Your task to perform on an android device: Show me the best rated vacuum on Walmart. Image 0: 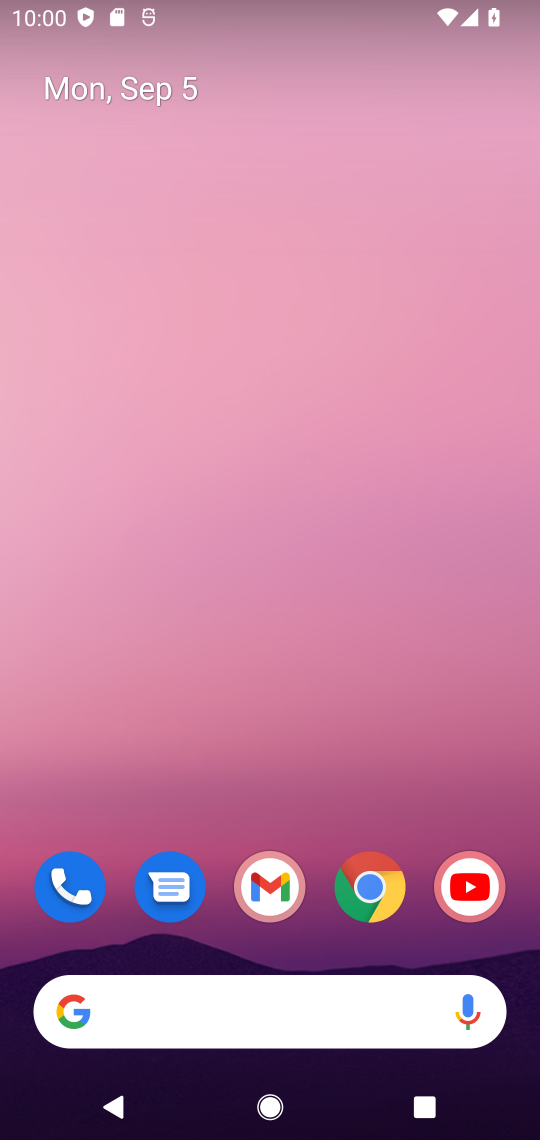
Step 0: click (367, 888)
Your task to perform on an android device: Show me the best rated vacuum on Walmart. Image 1: 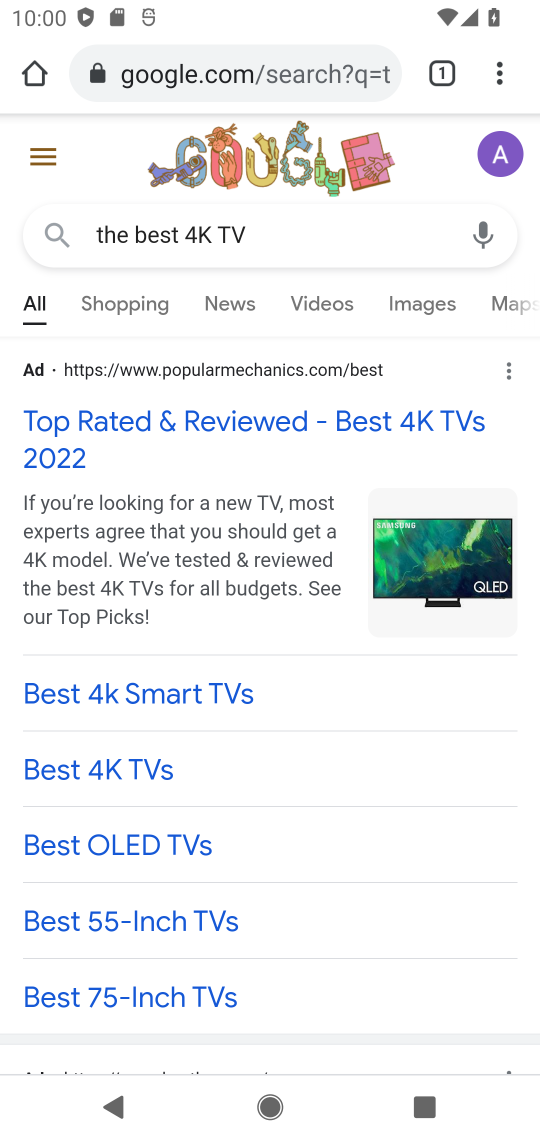
Step 1: click (229, 228)
Your task to perform on an android device: Show me the best rated vacuum on Walmart. Image 2: 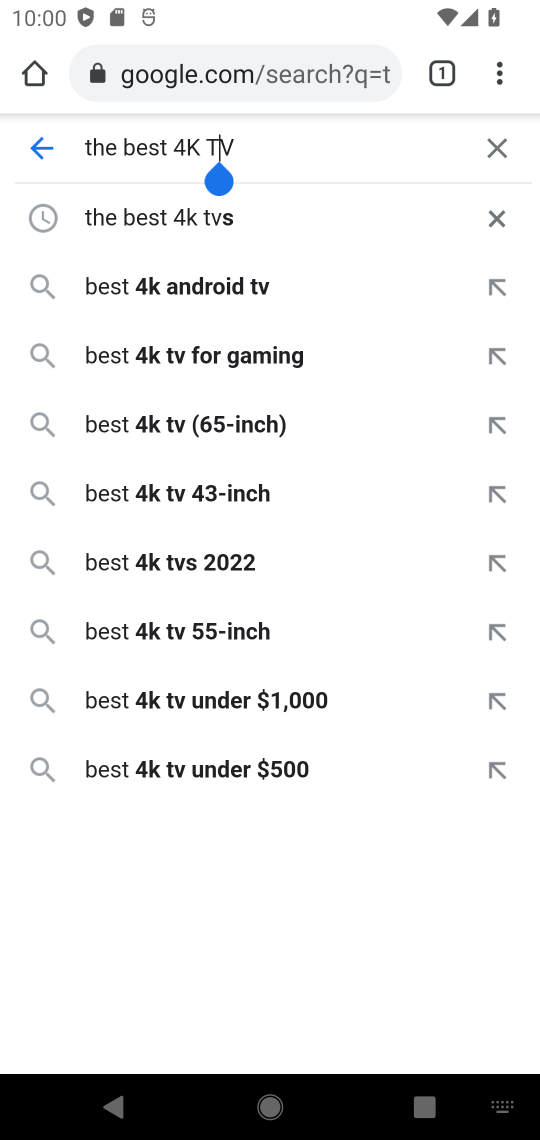
Step 2: click (493, 140)
Your task to perform on an android device: Show me the best rated vacuum on Walmart. Image 3: 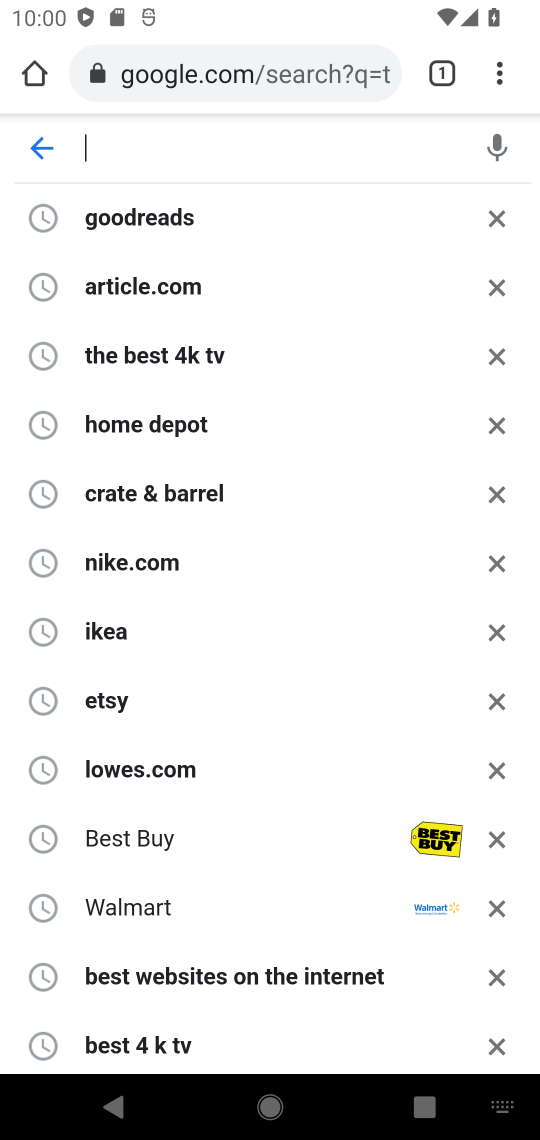
Step 3: type "walmart"
Your task to perform on an android device: Show me the best rated vacuum on Walmart. Image 4: 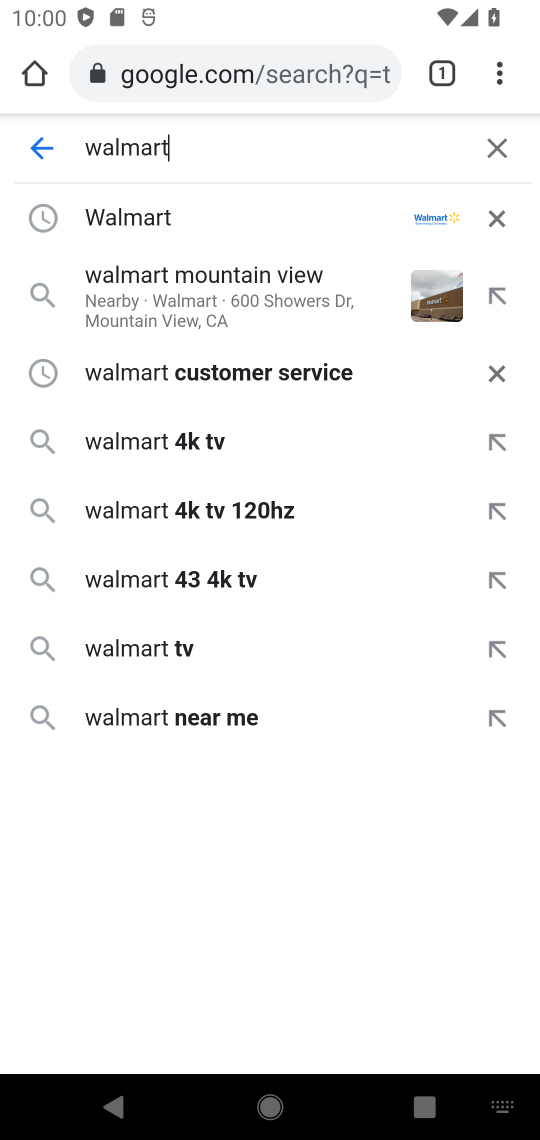
Step 4: click (122, 217)
Your task to perform on an android device: Show me the best rated vacuum on Walmart. Image 5: 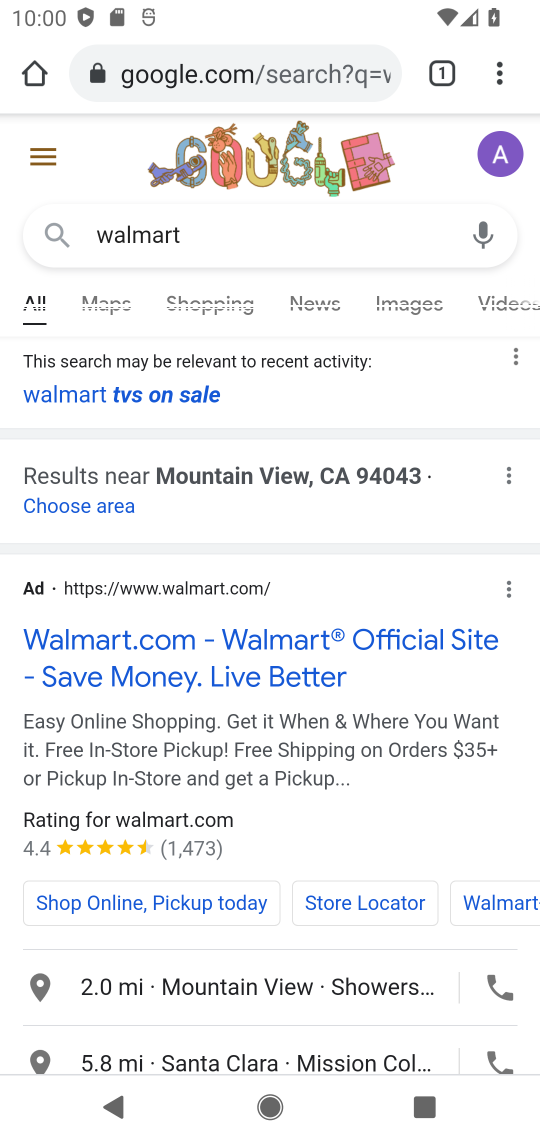
Step 5: click (129, 670)
Your task to perform on an android device: Show me the best rated vacuum on Walmart. Image 6: 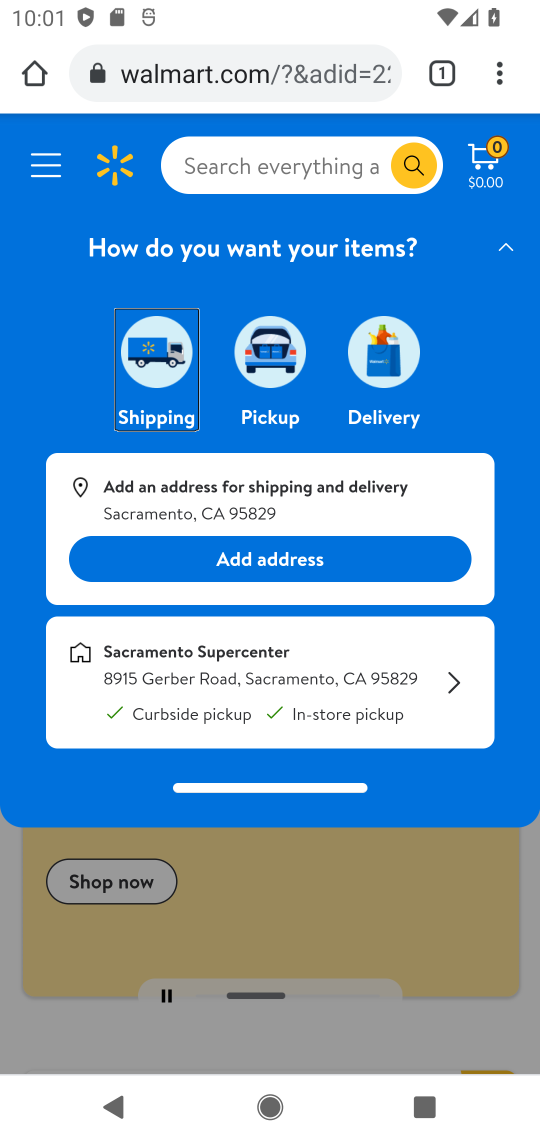
Step 6: click (255, 144)
Your task to perform on an android device: Show me the best rated vacuum on Walmart. Image 7: 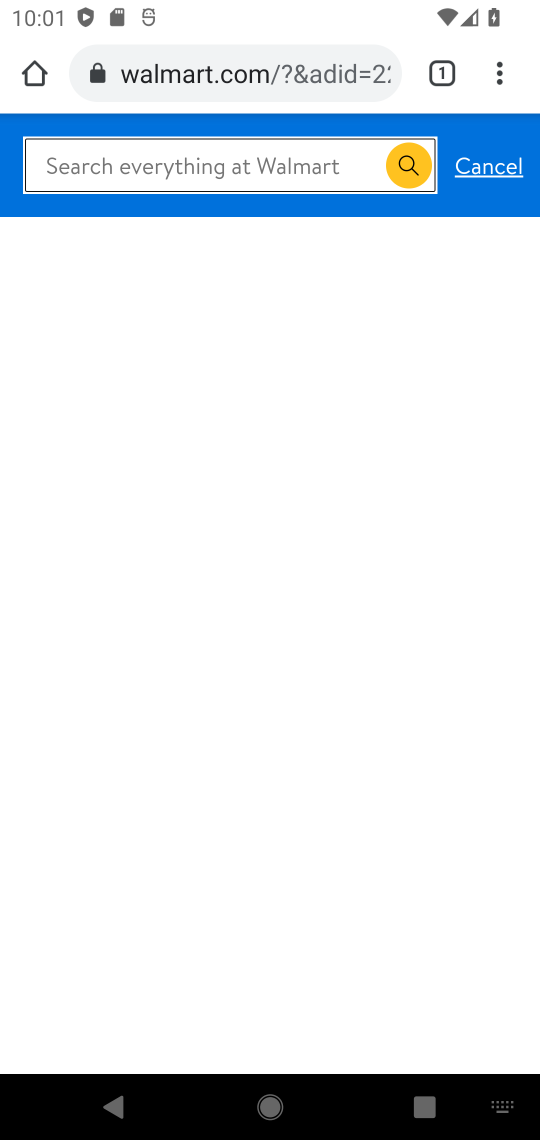
Step 7: type "the best rated vacuum"
Your task to perform on an android device: Show me the best rated vacuum on Walmart. Image 8: 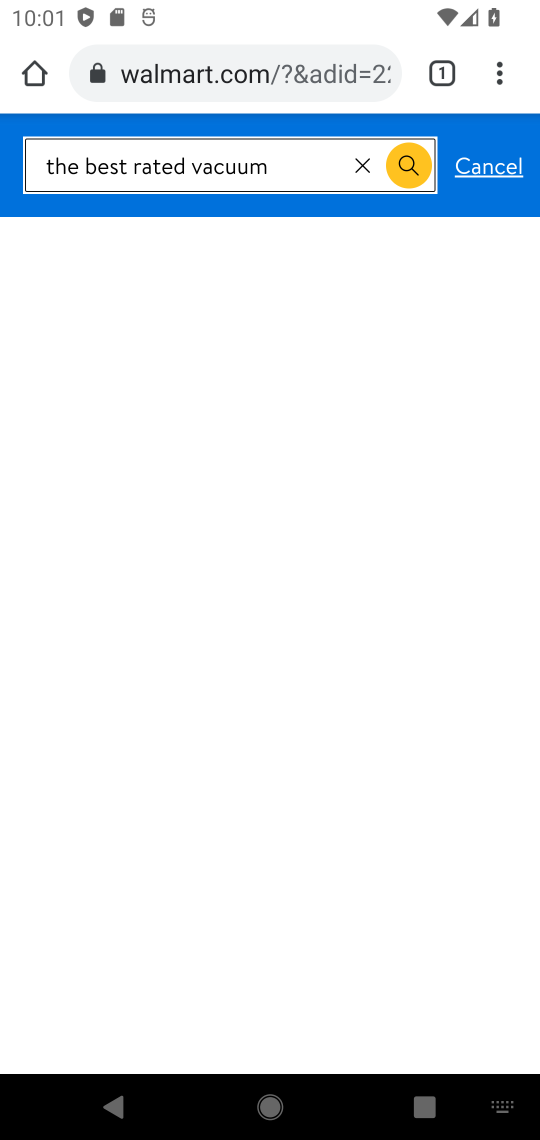
Step 8: click (405, 143)
Your task to perform on an android device: Show me the best rated vacuum on Walmart. Image 9: 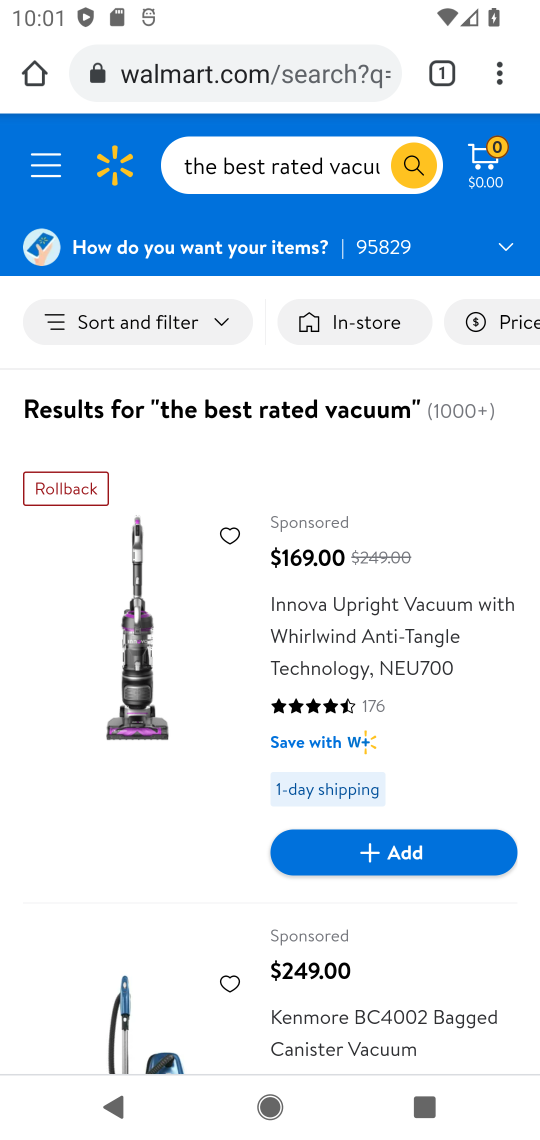
Step 9: task complete